Your task to perform on an android device: change alarm snooze length Image 0: 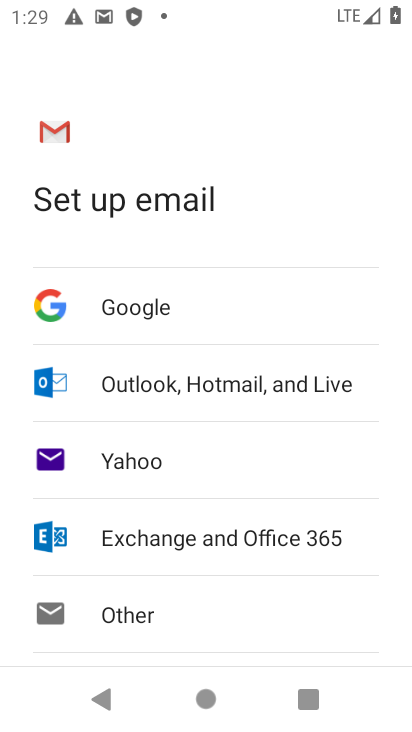
Step 0: press home button
Your task to perform on an android device: change alarm snooze length Image 1: 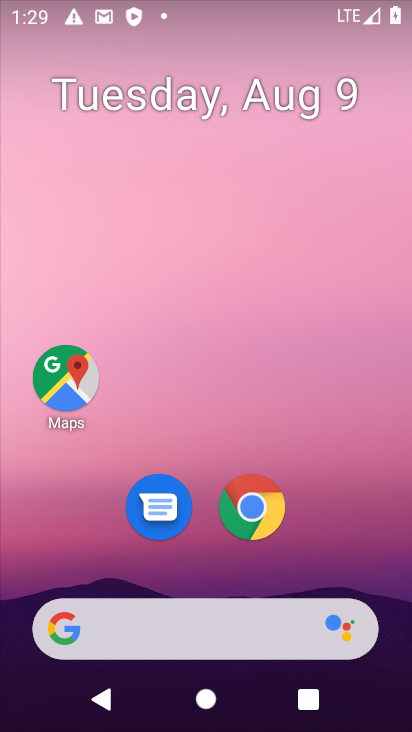
Step 1: drag from (222, 436) to (203, 181)
Your task to perform on an android device: change alarm snooze length Image 2: 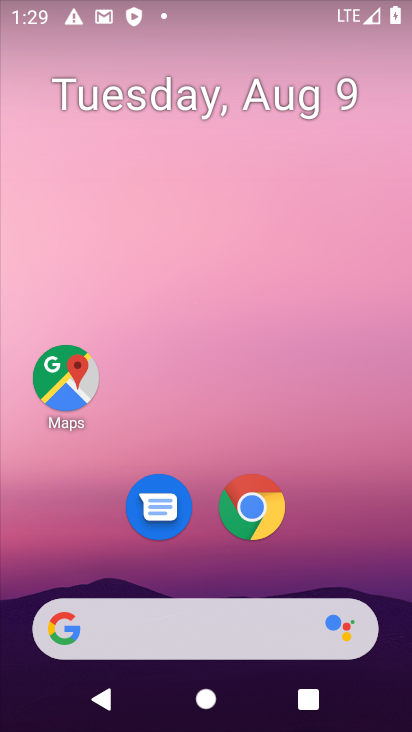
Step 2: drag from (204, 440) to (178, 207)
Your task to perform on an android device: change alarm snooze length Image 3: 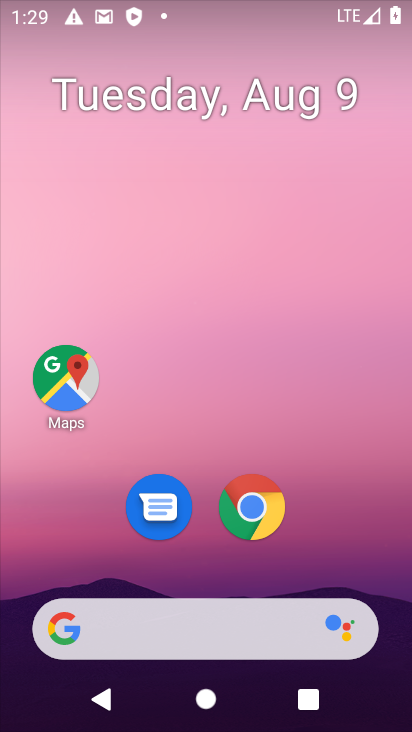
Step 3: drag from (213, 439) to (206, 4)
Your task to perform on an android device: change alarm snooze length Image 4: 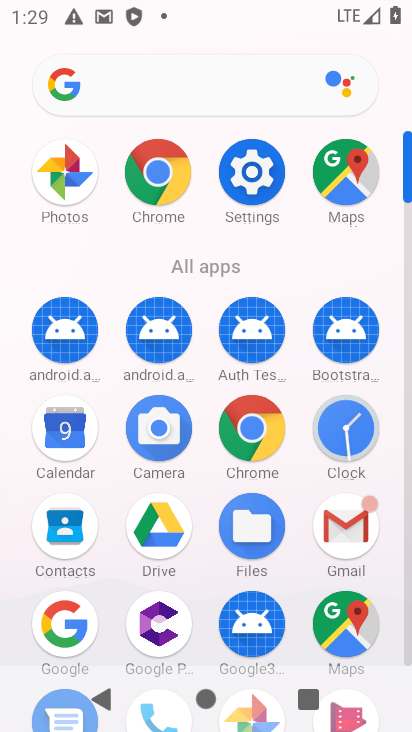
Step 4: drag from (297, 567) to (293, 205)
Your task to perform on an android device: change alarm snooze length Image 5: 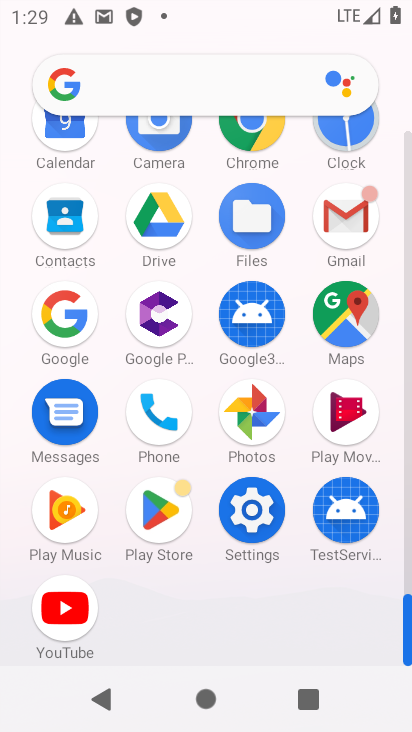
Step 5: drag from (294, 280) to (306, 548)
Your task to perform on an android device: change alarm snooze length Image 6: 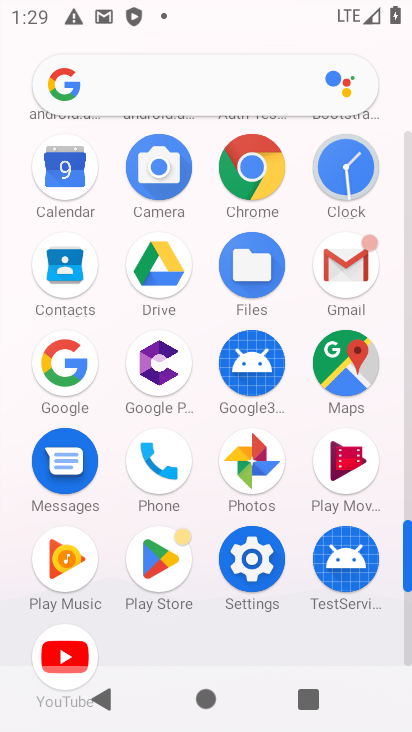
Step 6: drag from (223, 279) to (236, 437)
Your task to perform on an android device: change alarm snooze length Image 7: 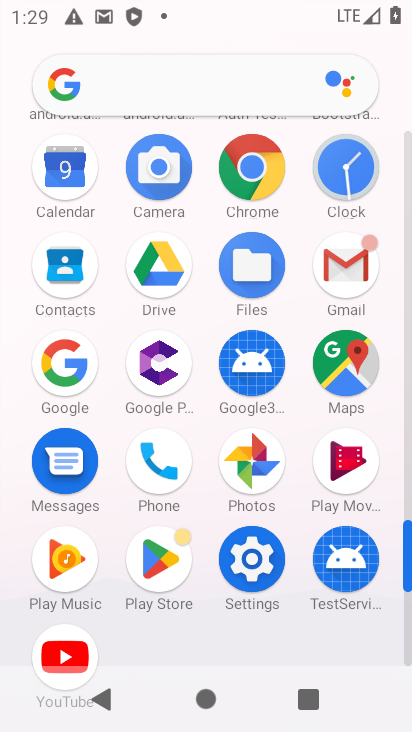
Step 7: click (348, 187)
Your task to perform on an android device: change alarm snooze length Image 8: 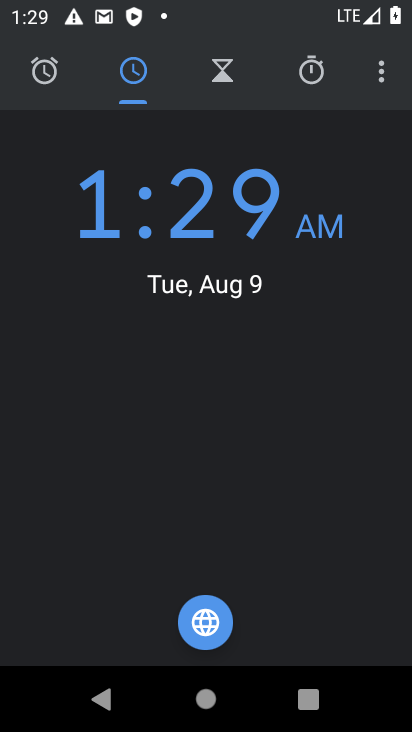
Step 8: click (381, 74)
Your task to perform on an android device: change alarm snooze length Image 9: 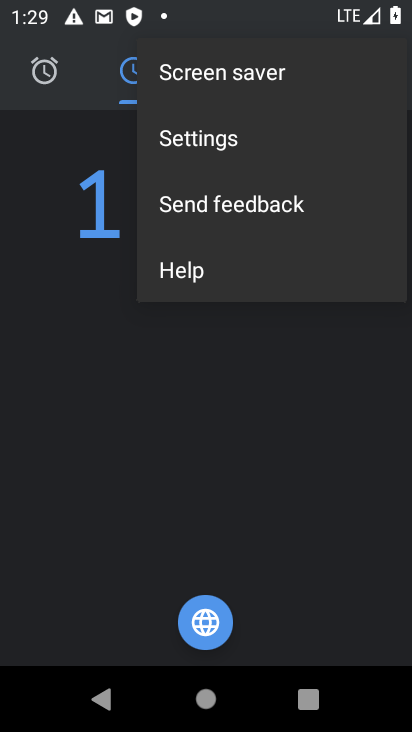
Step 9: click (231, 147)
Your task to perform on an android device: change alarm snooze length Image 10: 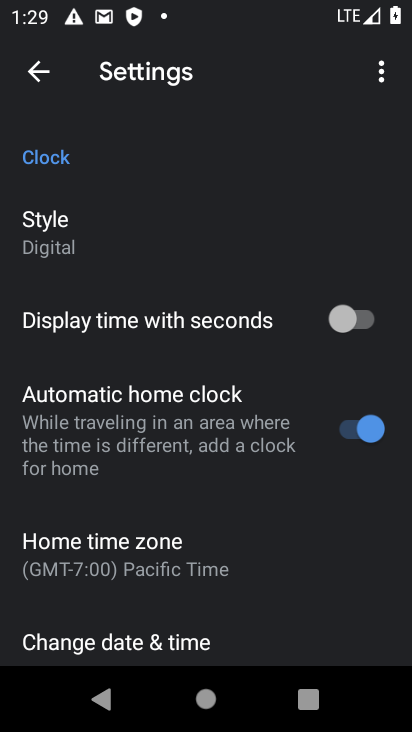
Step 10: drag from (188, 545) to (179, 236)
Your task to perform on an android device: change alarm snooze length Image 11: 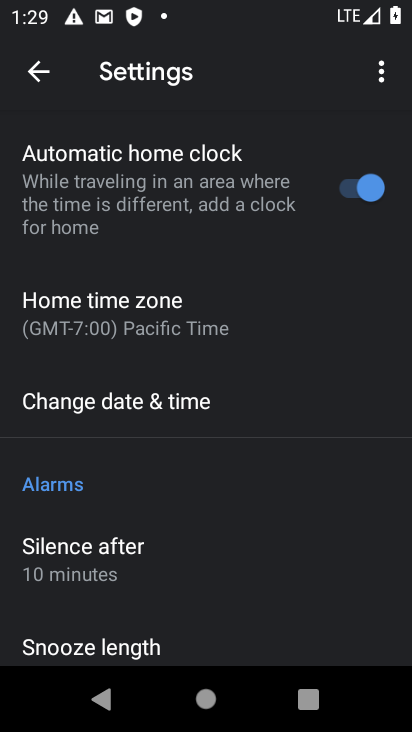
Step 11: click (130, 539)
Your task to perform on an android device: change alarm snooze length Image 12: 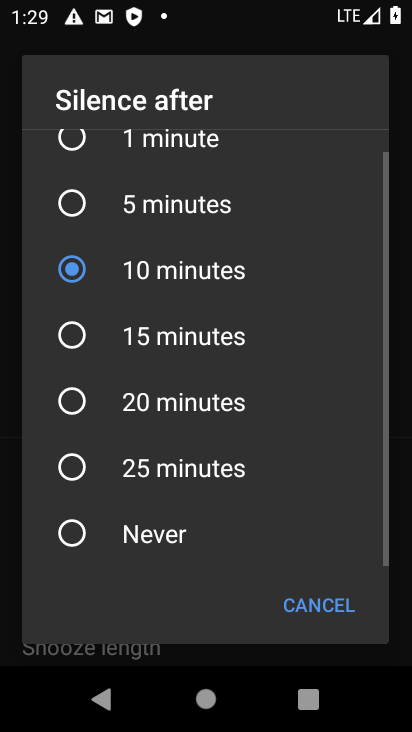
Step 12: click (69, 405)
Your task to perform on an android device: change alarm snooze length Image 13: 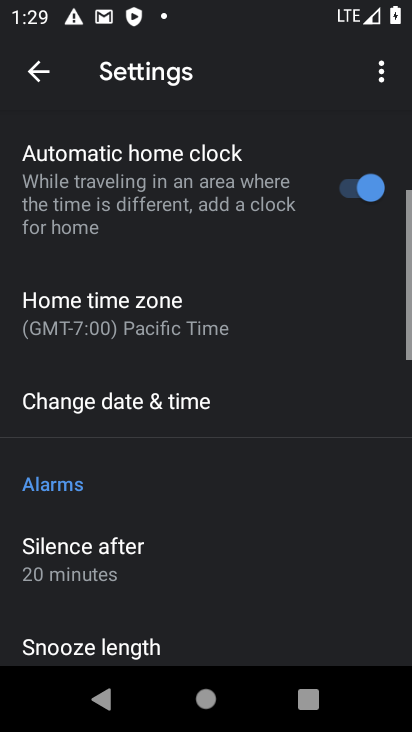
Step 13: task complete